Your task to perform on an android device: Go to Amazon Image 0: 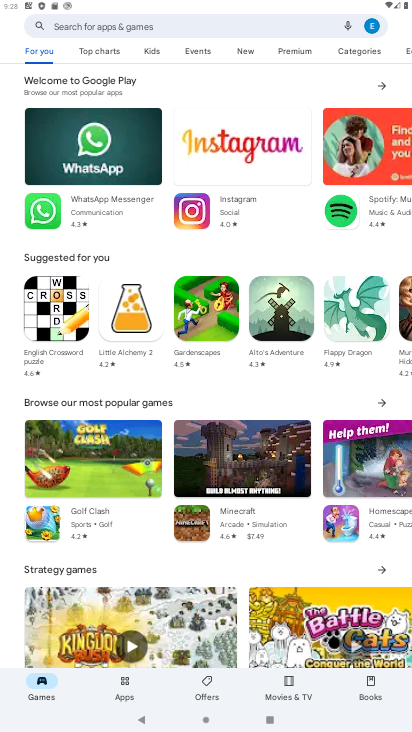
Step 0: press home button
Your task to perform on an android device: Go to Amazon Image 1: 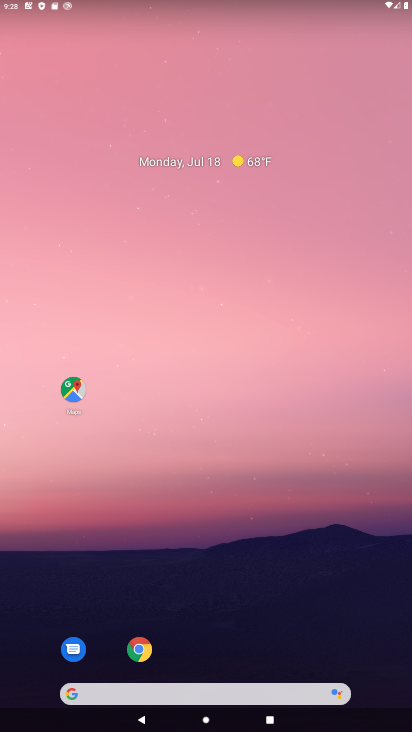
Step 1: click (139, 644)
Your task to perform on an android device: Go to Amazon Image 2: 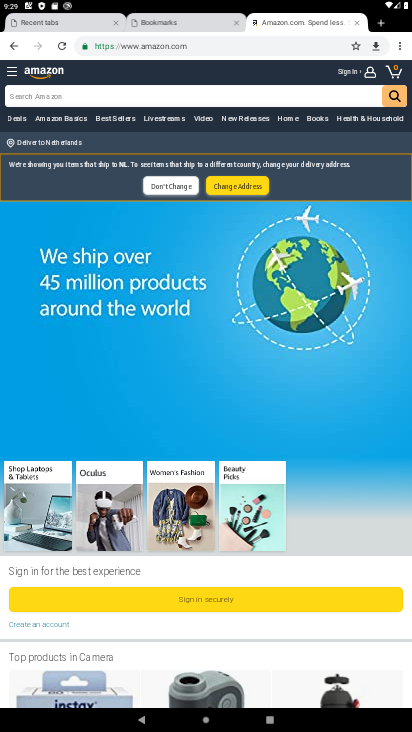
Step 2: task complete